Your task to perform on an android device: Open notification settings Image 0: 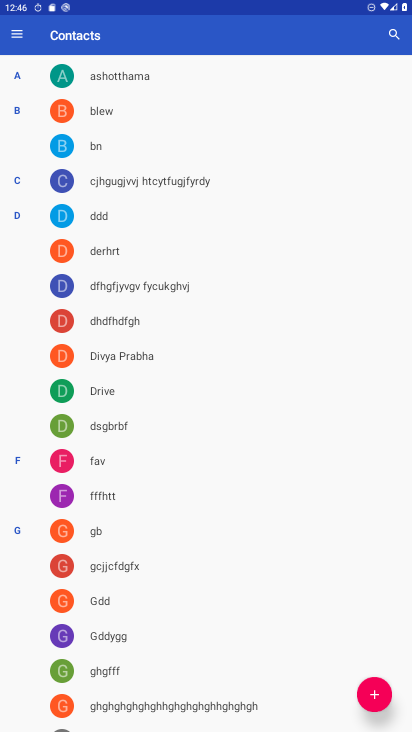
Step 0: press home button
Your task to perform on an android device: Open notification settings Image 1: 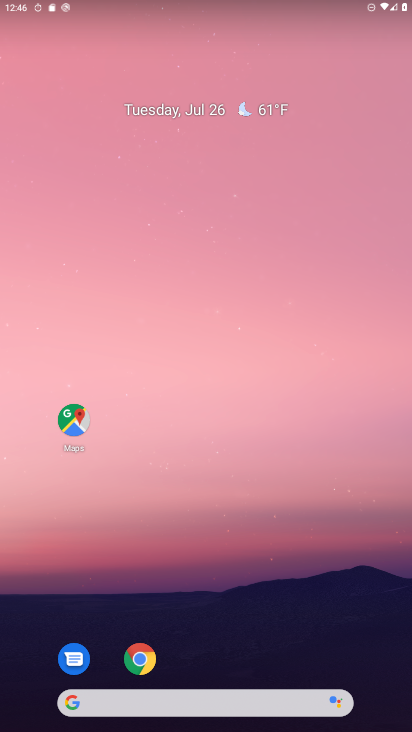
Step 1: drag from (37, 685) to (342, 1)
Your task to perform on an android device: Open notification settings Image 2: 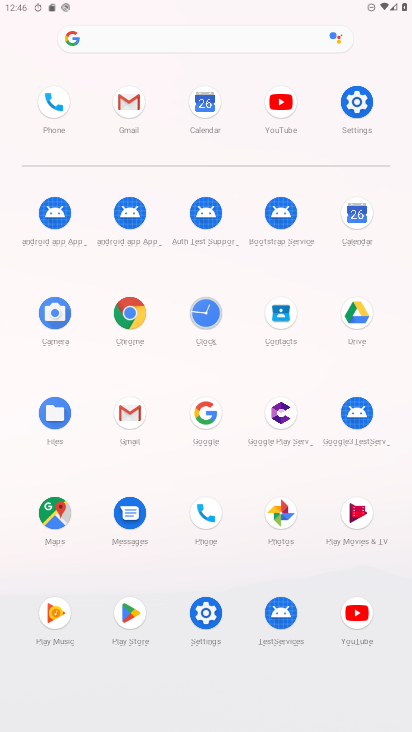
Step 2: click (208, 608)
Your task to perform on an android device: Open notification settings Image 3: 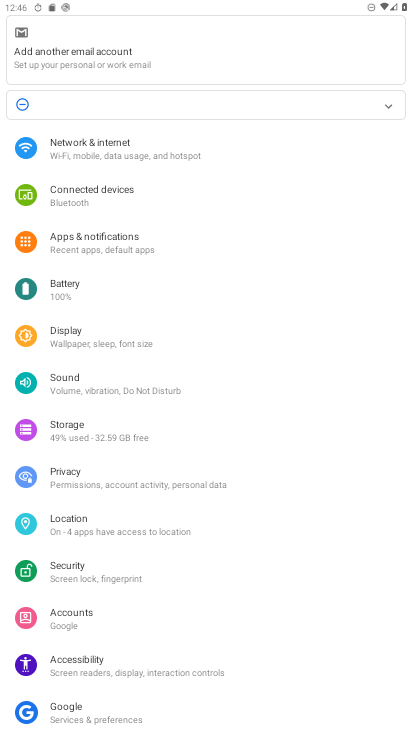
Step 3: click (99, 246)
Your task to perform on an android device: Open notification settings Image 4: 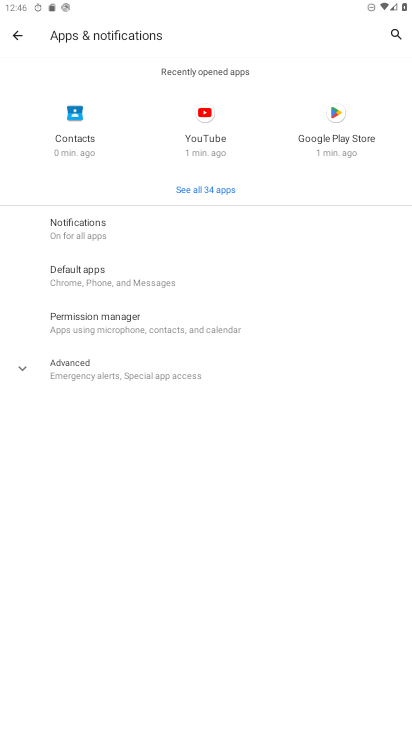
Step 4: task complete